Your task to perform on an android device: Go to sound settings Image 0: 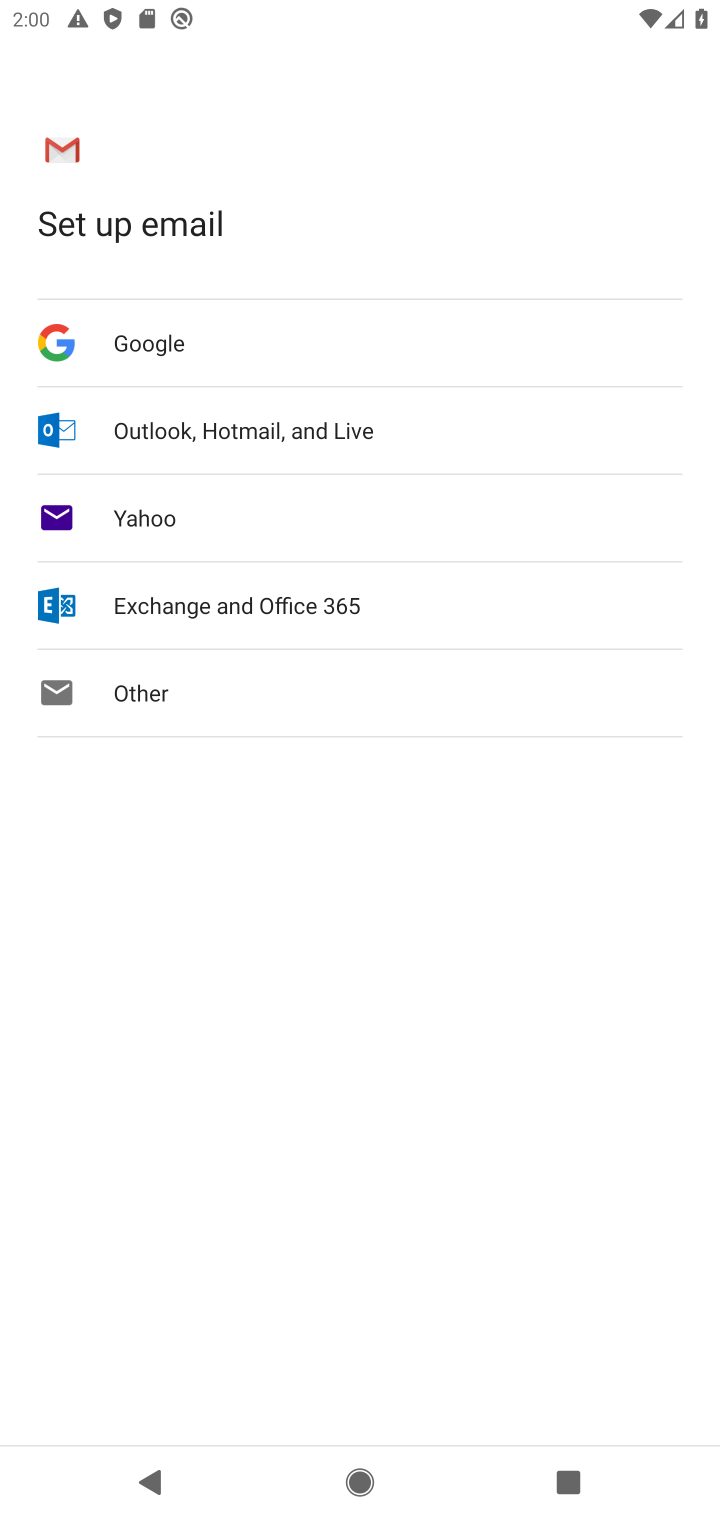
Step 0: press home button
Your task to perform on an android device: Go to sound settings Image 1: 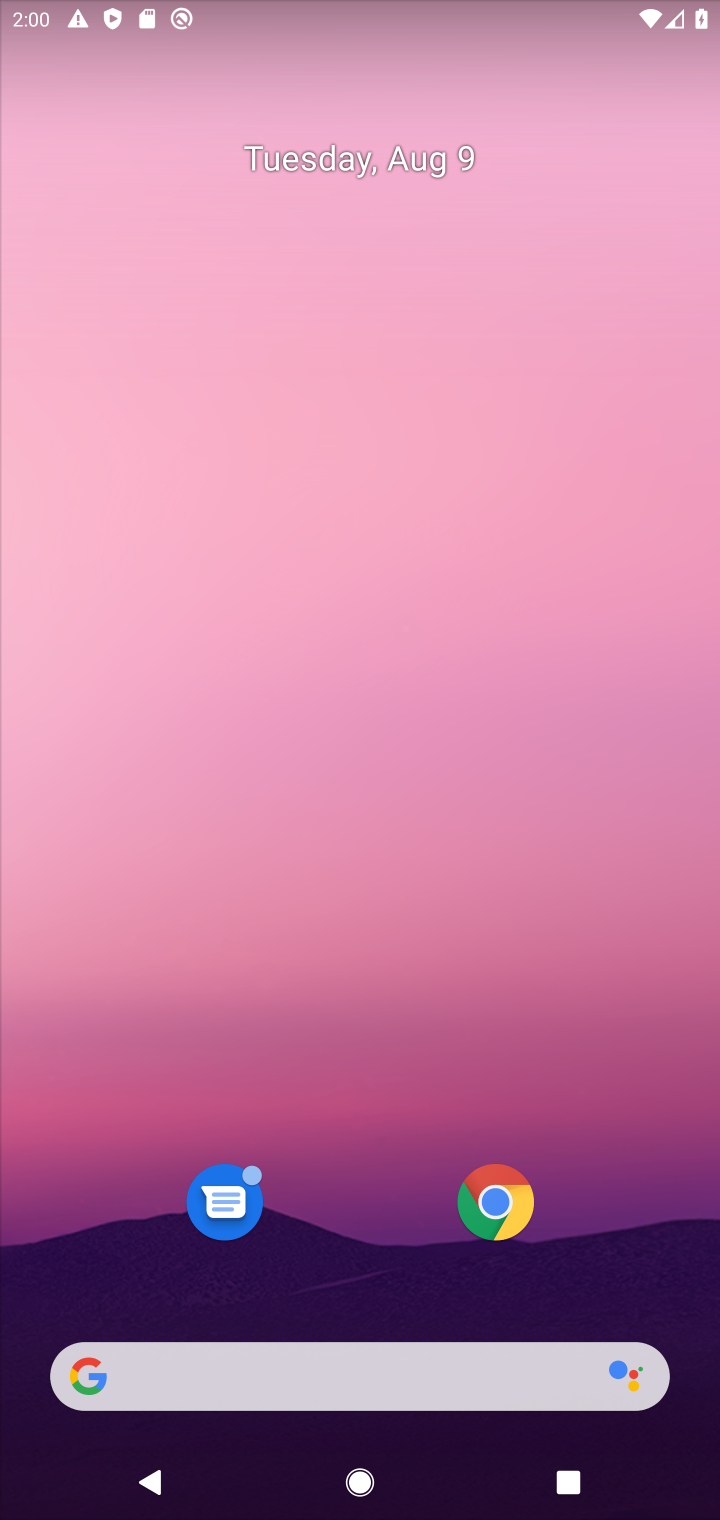
Step 1: drag from (361, 1386) to (381, 32)
Your task to perform on an android device: Go to sound settings Image 2: 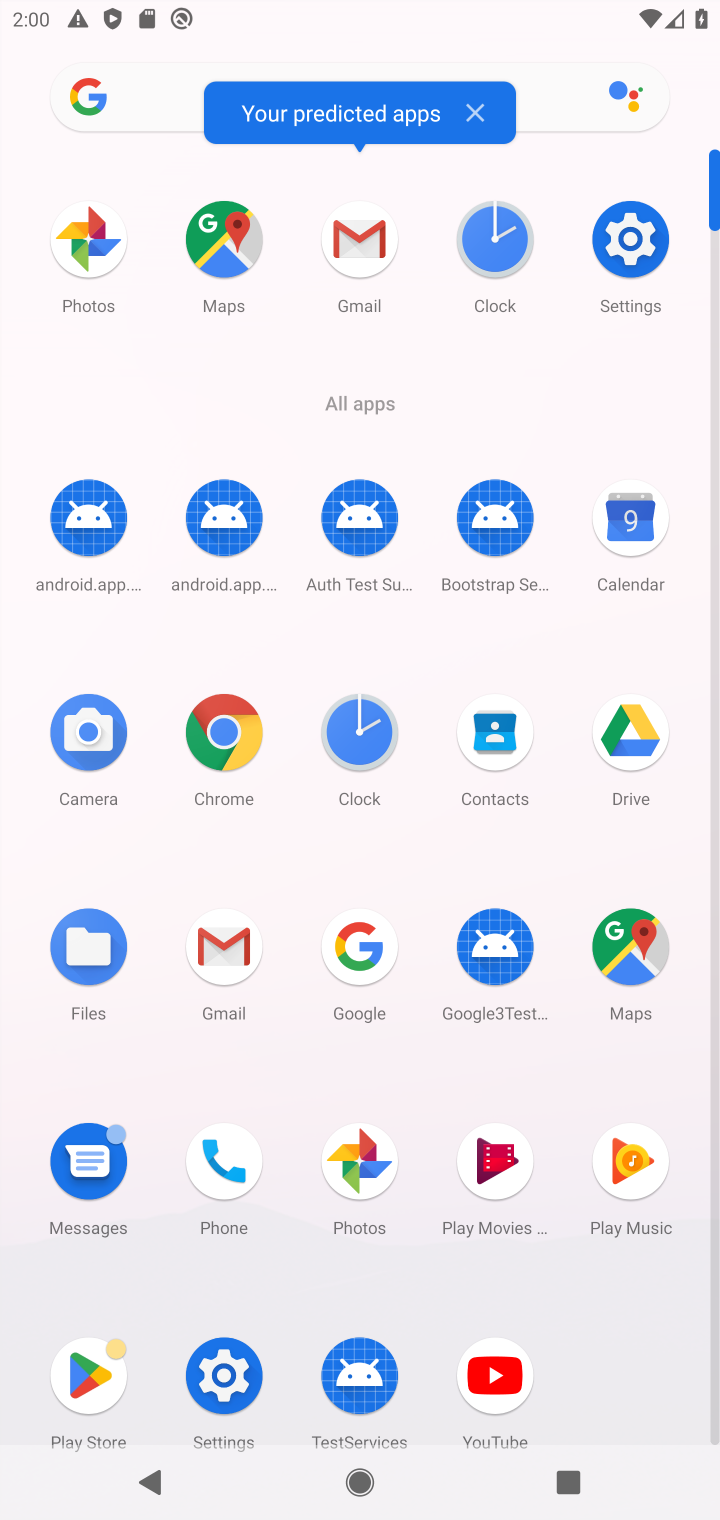
Step 2: click (636, 245)
Your task to perform on an android device: Go to sound settings Image 3: 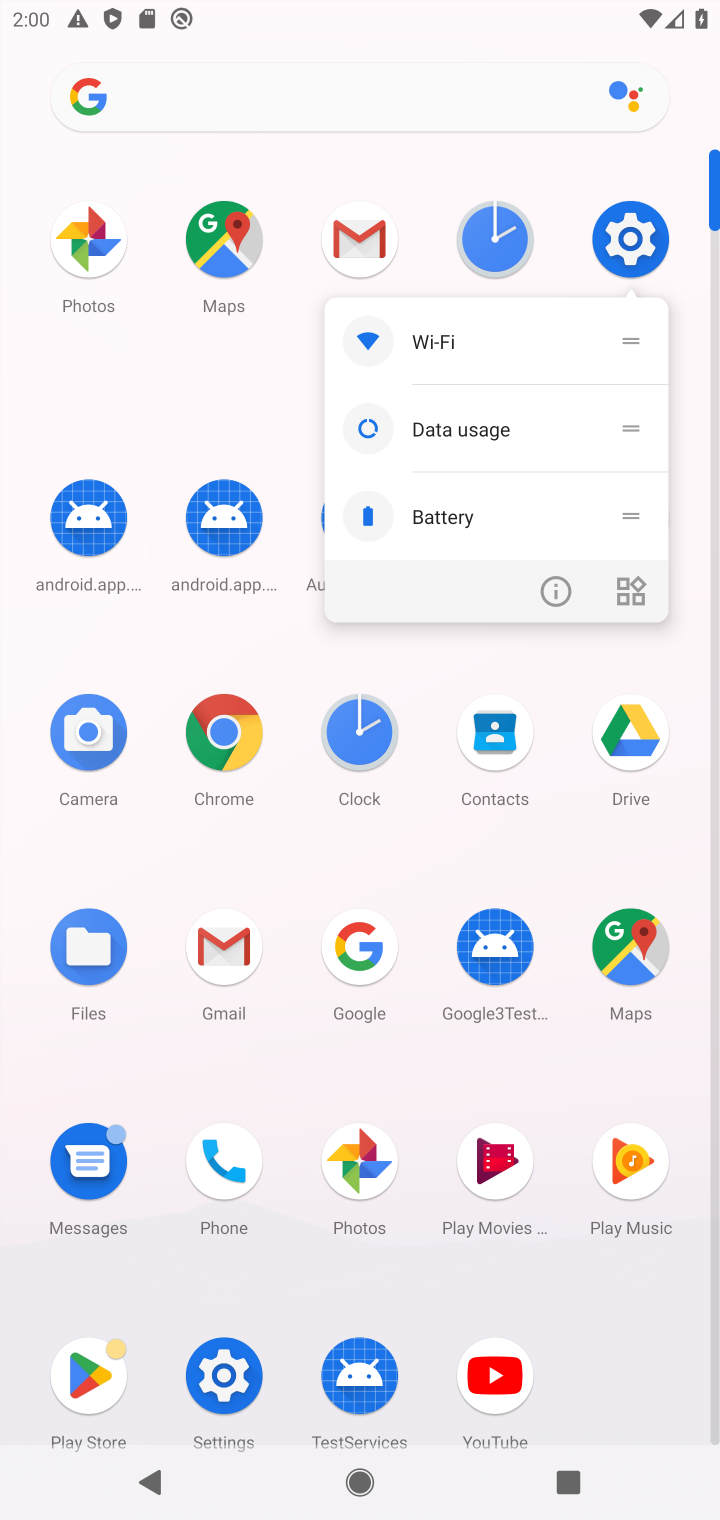
Step 3: click (636, 245)
Your task to perform on an android device: Go to sound settings Image 4: 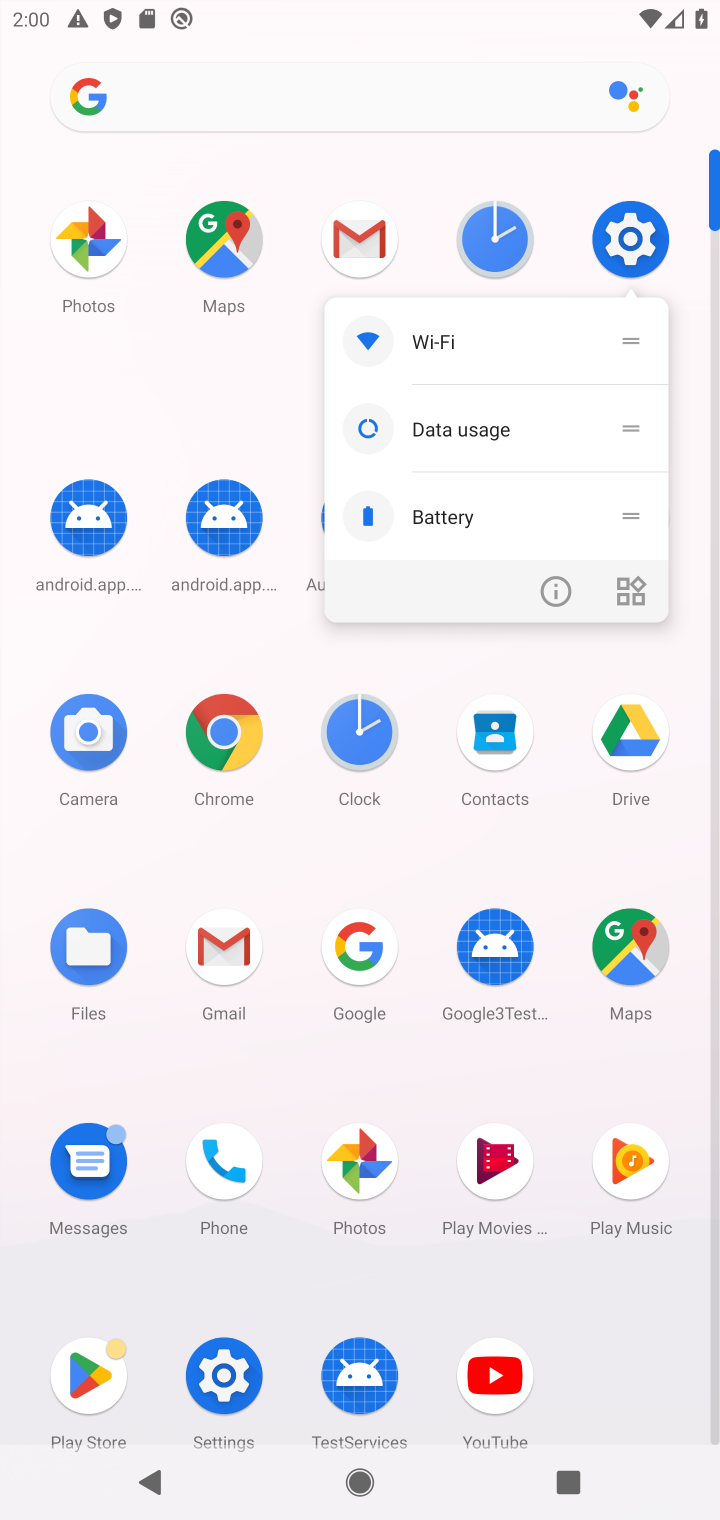
Step 4: click (636, 245)
Your task to perform on an android device: Go to sound settings Image 5: 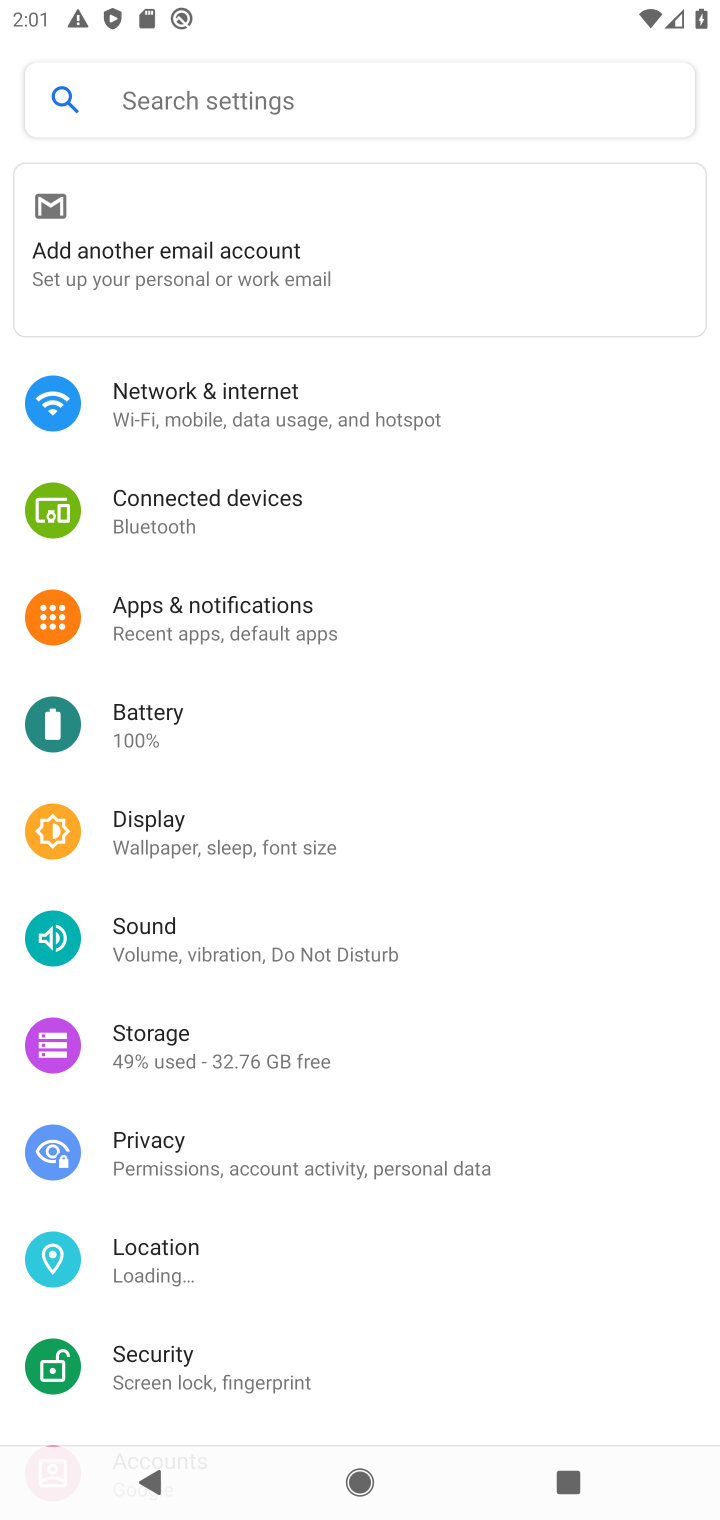
Step 5: click (203, 923)
Your task to perform on an android device: Go to sound settings Image 6: 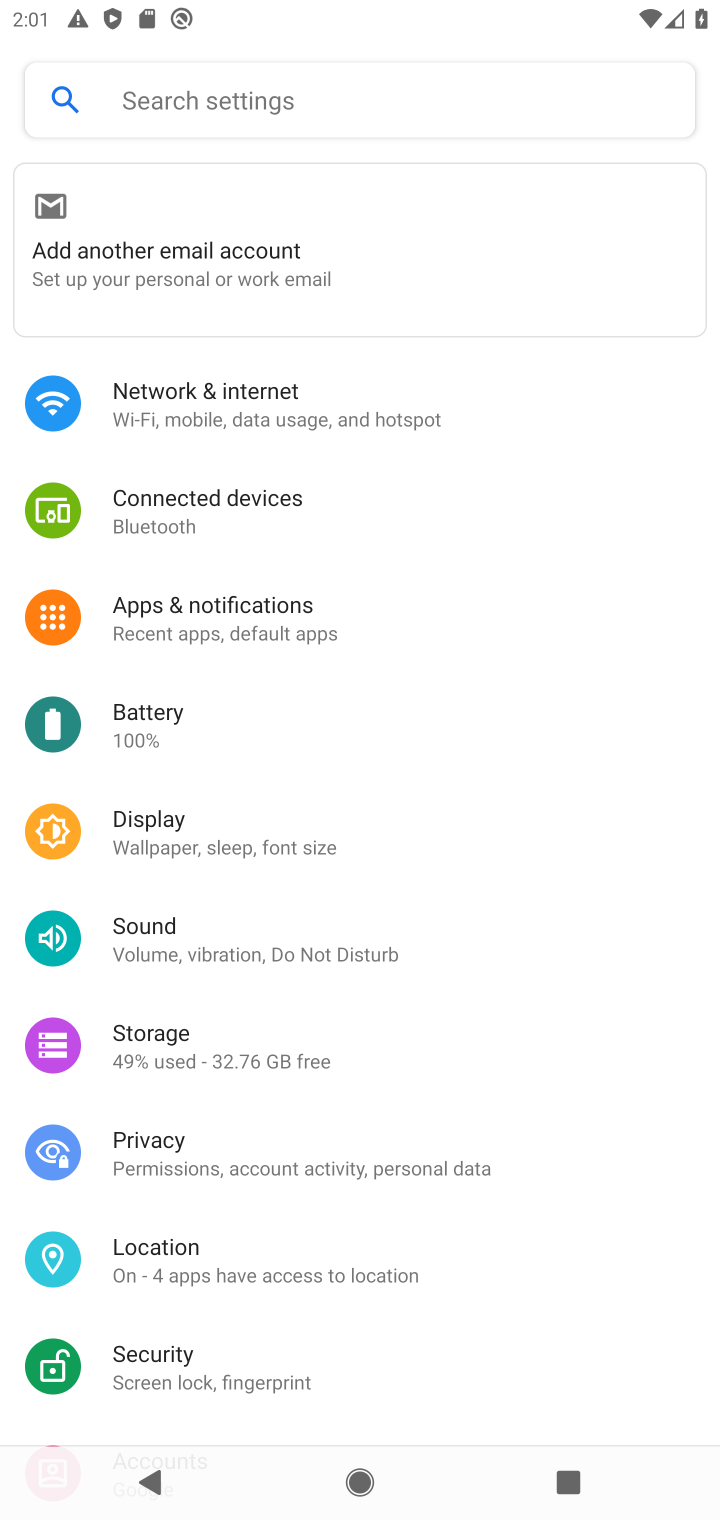
Step 6: task complete